Your task to perform on an android device: Open maps Image 0: 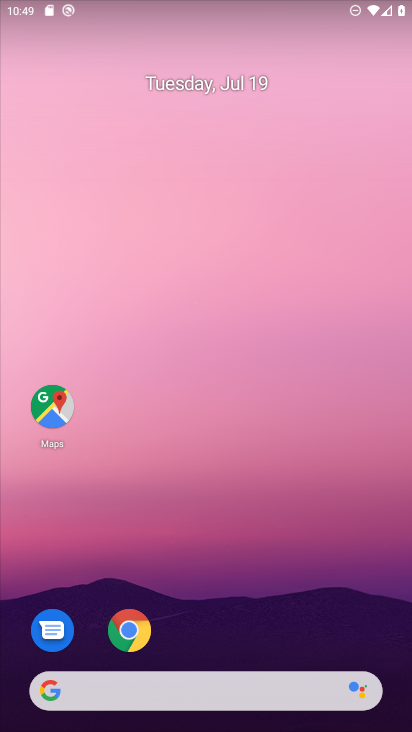
Step 0: click (55, 408)
Your task to perform on an android device: Open maps Image 1: 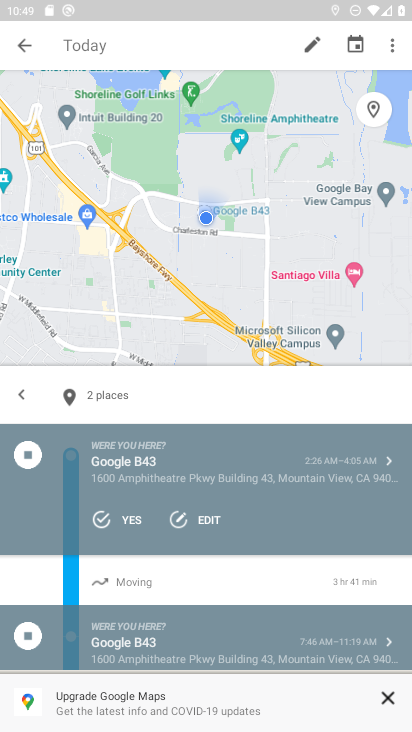
Step 1: task complete